Your task to perform on an android device: Set the phone to "Do not disturb". Image 0: 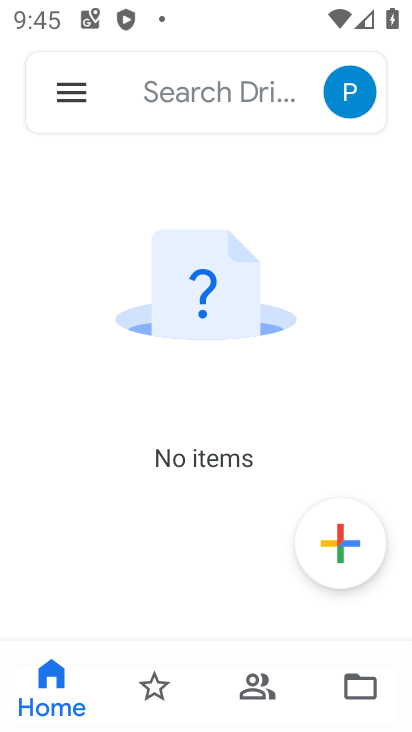
Step 0: press back button
Your task to perform on an android device: Set the phone to "Do not disturb". Image 1: 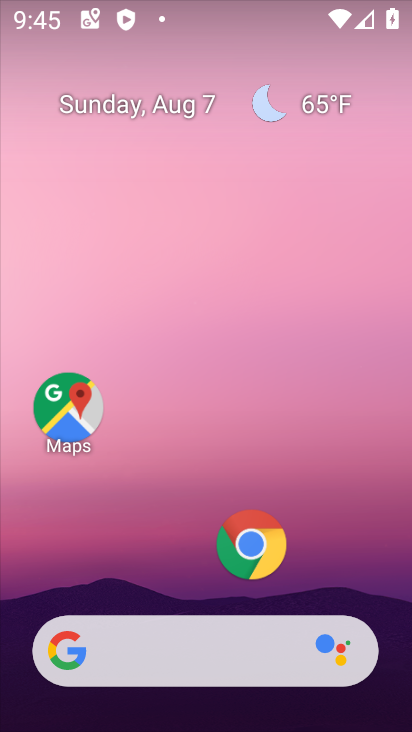
Step 1: drag from (269, 4) to (200, 620)
Your task to perform on an android device: Set the phone to "Do not disturb". Image 2: 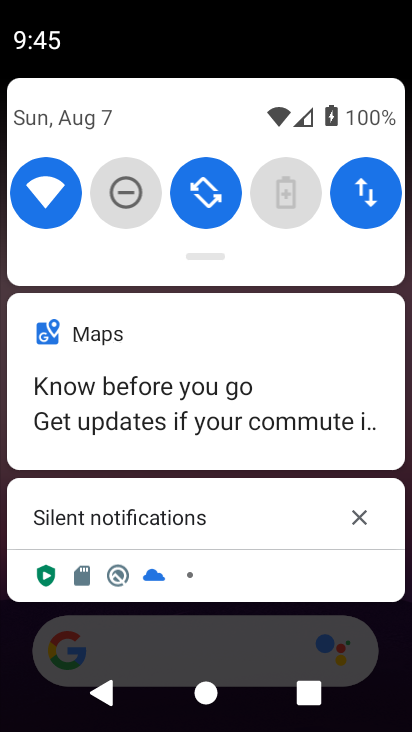
Step 2: click (128, 213)
Your task to perform on an android device: Set the phone to "Do not disturb". Image 3: 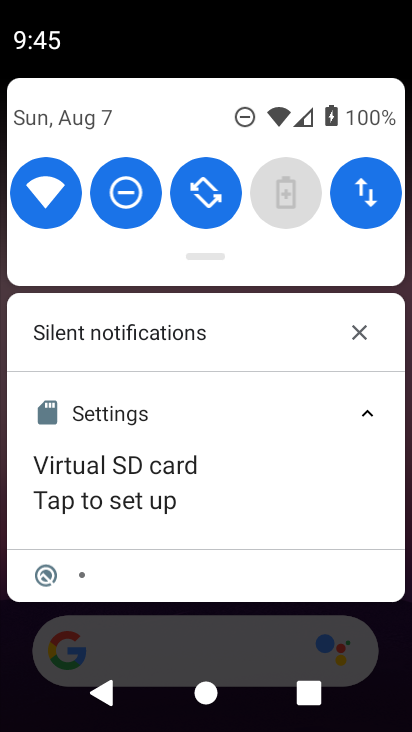
Step 3: task complete